Your task to perform on an android device: read, delete, or share a saved page in the chrome app Image 0: 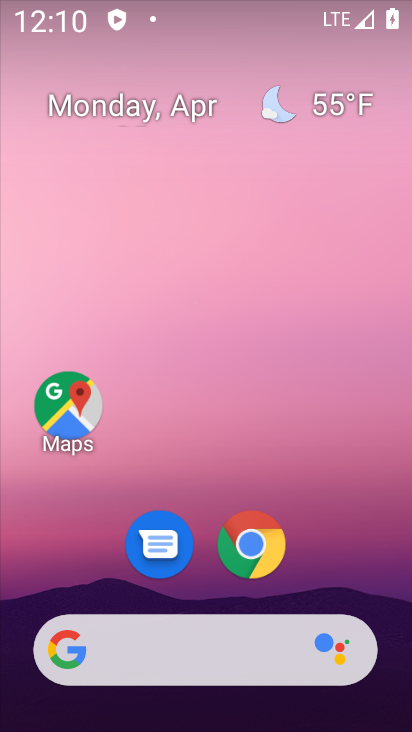
Step 0: click (257, 546)
Your task to perform on an android device: read, delete, or share a saved page in the chrome app Image 1: 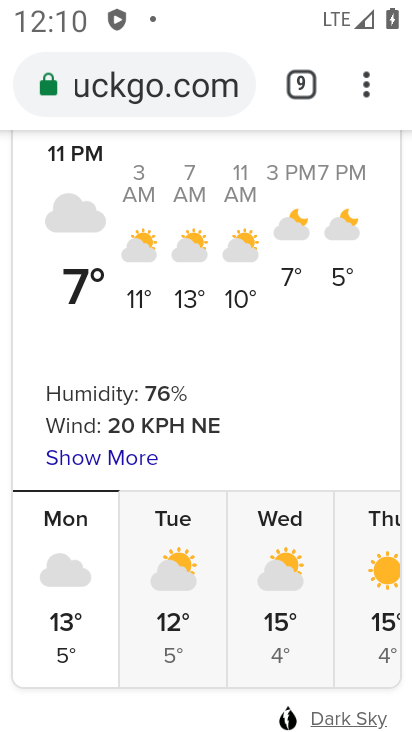
Step 1: drag from (365, 82) to (213, 249)
Your task to perform on an android device: read, delete, or share a saved page in the chrome app Image 2: 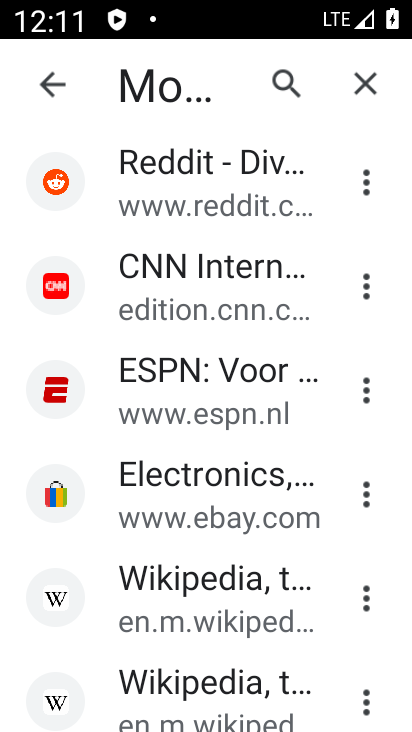
Step 2: drag from (186, 663) to (165, 350)
Your task to perform on an android device: read, delete, or share a saved page in the chrome app Image 3: 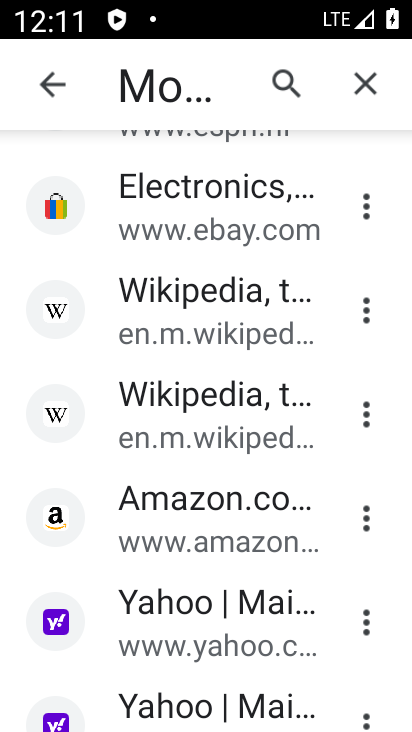
Step 3: click (367, 415)
Your task to perform on an android device: read, delete, or share a saved page in the chrome app Image 4: 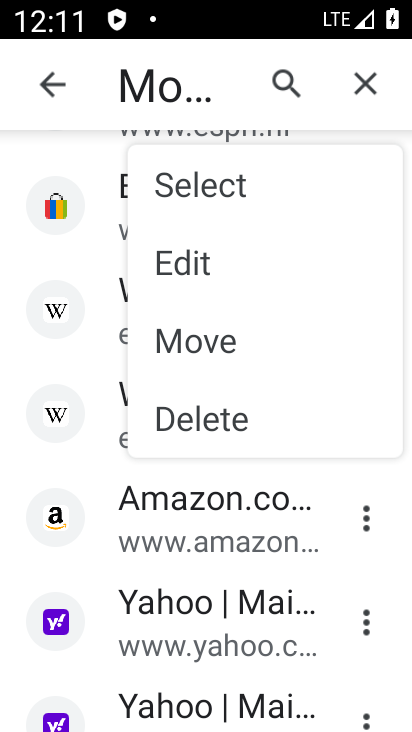
Step 4: click (203, 417)
Your task to perform on an android device: read, delete, or share a saved page in the chrome app Image 5: 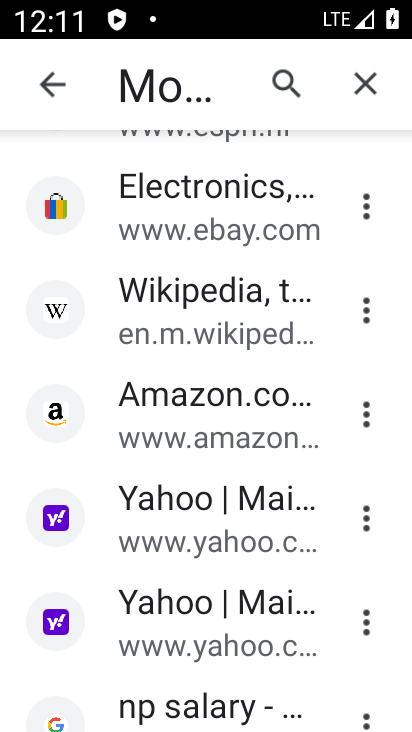
Step 5: task complete